Your task to perform on an android device: turn on location history Image 0: 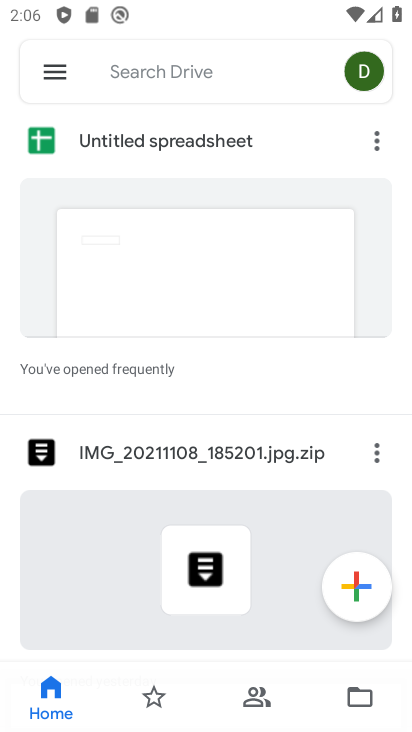
Step 0: press home button
Your task to perform on an android device: turn on location history Image 1: 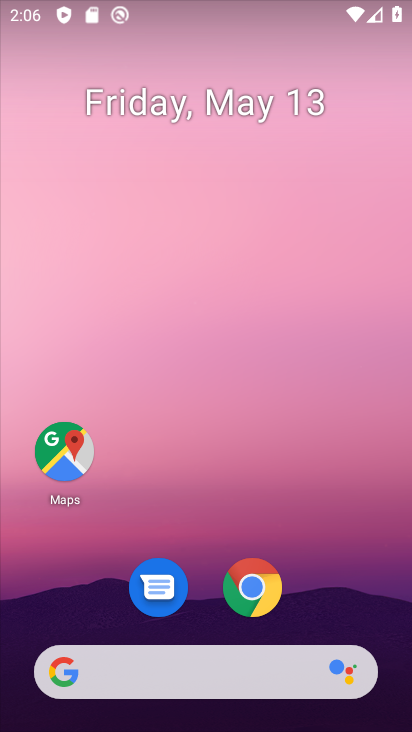
Step 1: drag from (224, 570) to (241, 142)
Your task to perform on an android device: turn on location history Image 2: 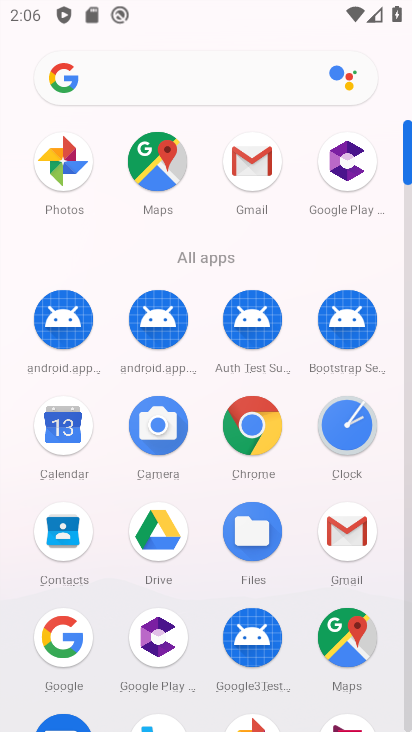
Step 2: drag from (119, 674) to (240, 198)
Your task to perform on an android device: turn on location history Image 3: 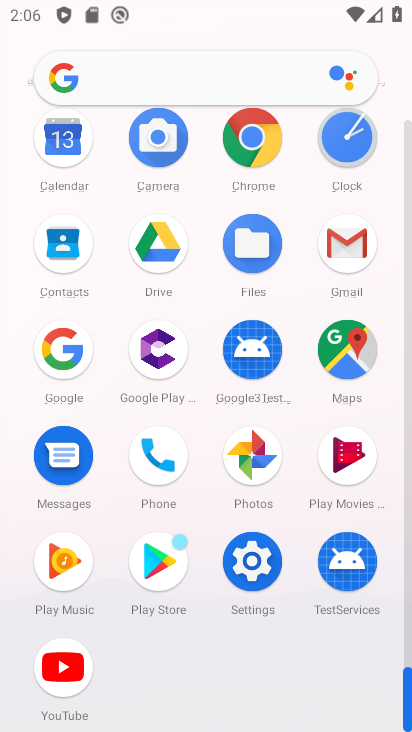
Step 3: click (257, 560)
Your task to perform on an android device: turn on location history Image 4: 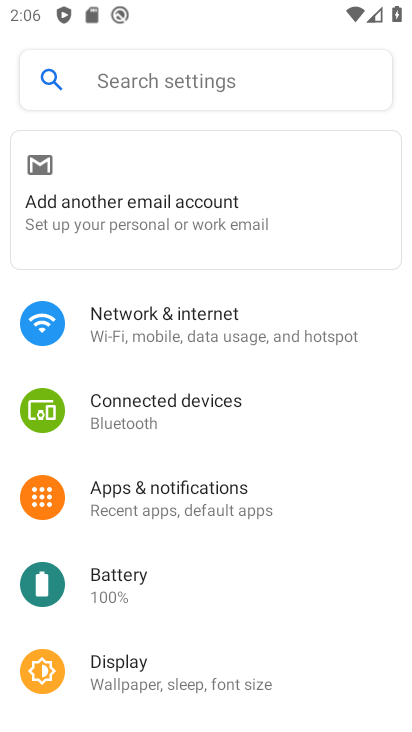
Step 4: drag from (227, 612) to (397, 101)
Your task to perform on an android device: turn on location history Image 5: 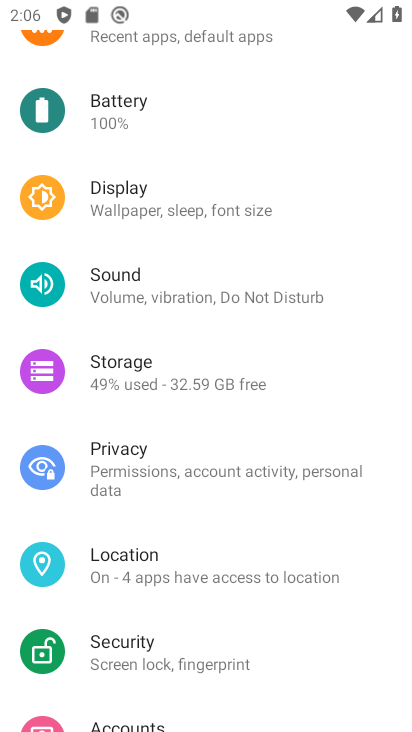
Step 5: drag from (215, 570) to (346, 208)
Your task to perform on an android device: turn on location history Image 6: 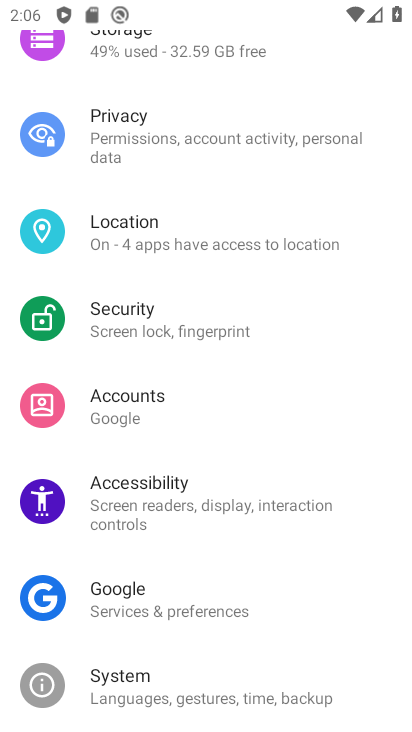
Step 6: drag from (271, 164) to (411, 490)
Your task to perform on an android device: turn on location history Image 7: 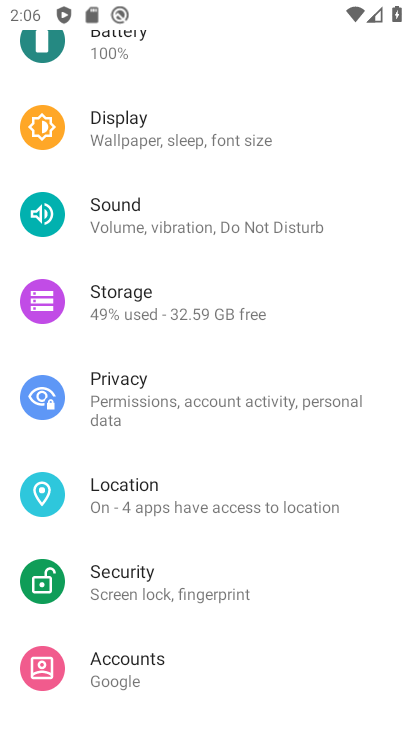
Step 7: click (160, 493)
Your task to perform on an android device: turn on location history Image 8: 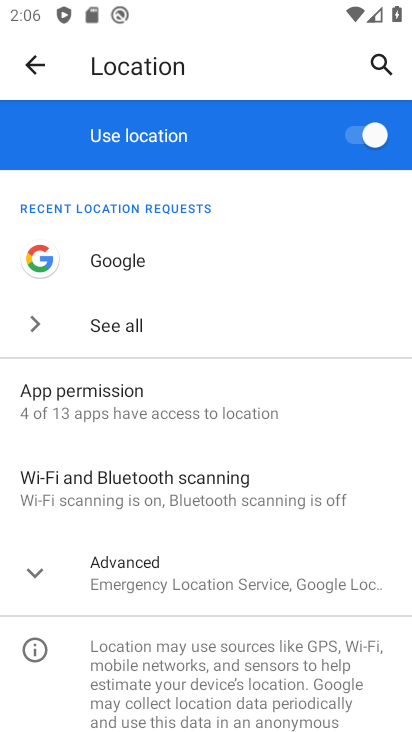
Step 8: click (129, 555)
Your task to perform on an android device: turn on location history Image 9: 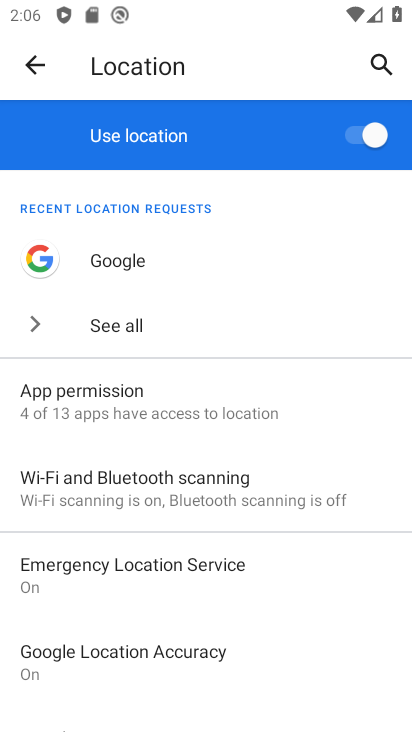
Step 9: drag from (346, 582) to (410, 264)
Your task to perform on an android device: turn on location history Image 10: 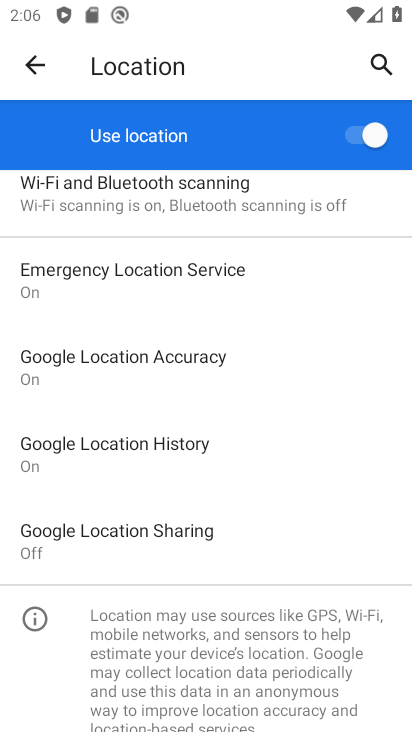
Step 10: click (226, 434)
Your task to perform on an android device: turn on location history Image 11: 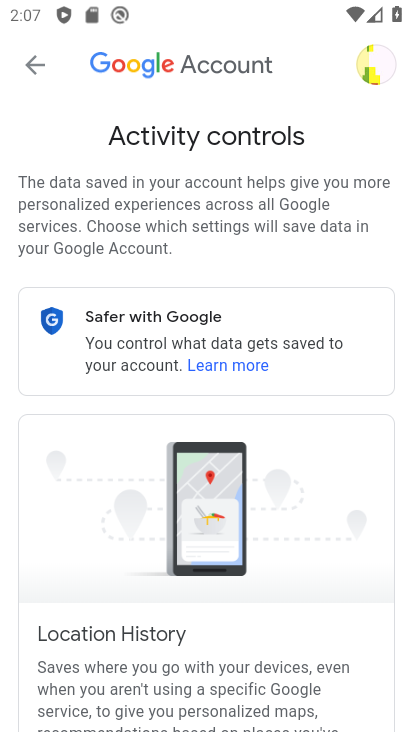
Step 11: task complete